Your task to perform on an android device: Open the Play Movies app and select the watchlist tab. Image 0: 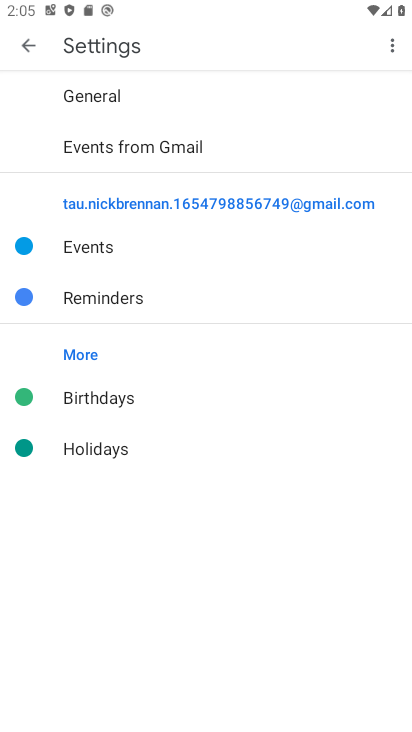
Step 0: press home button
Your task to perform on an android device: Open the Play Movies app and select the watchlist tab. Image 1: 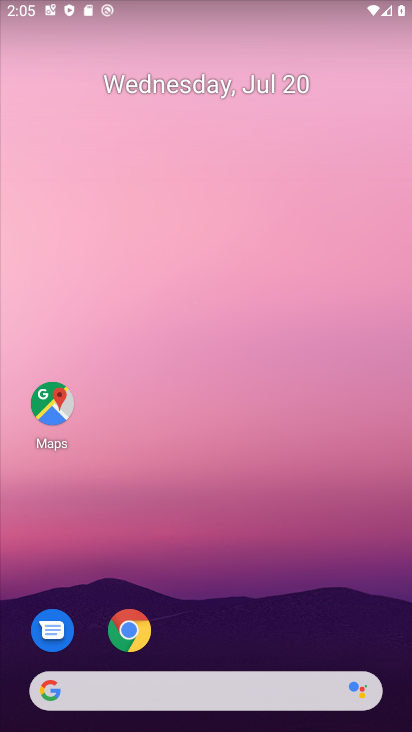
Step 1: drag from (288, 558) to (331, 90)
Your task to perform on an android device: Open the Play Movies app and select the watchlist tab. Image 2: 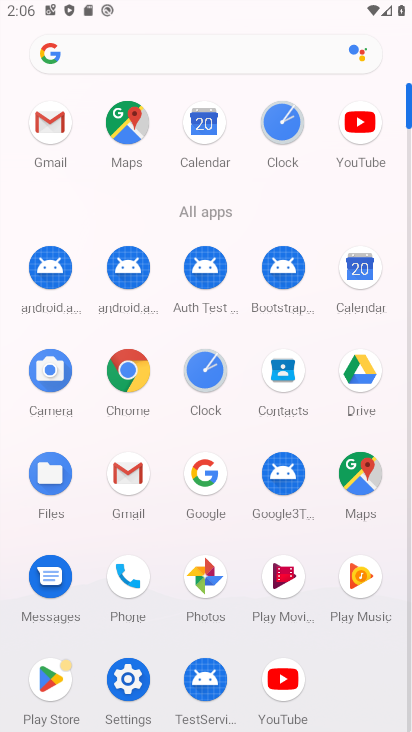
Step 2: click (288, 580)
Your task to perform on an android device: Open the Play Movies app and select the watchlist tab. Image 3: 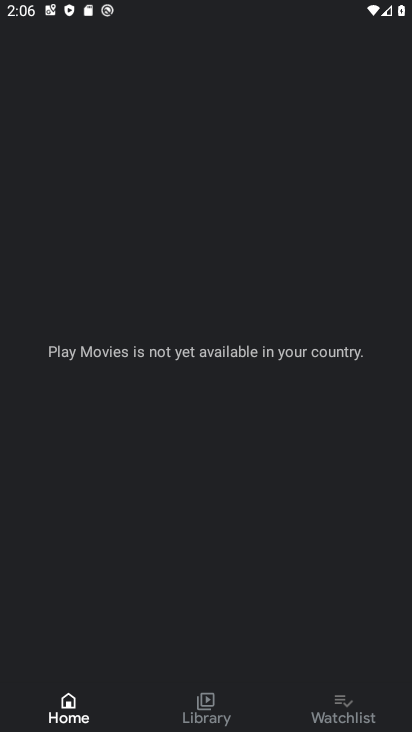
Step 3: click (350, 716)
Your task to perform on an android device: Open the Play Movies app and select the watchlist tab. Image 4: 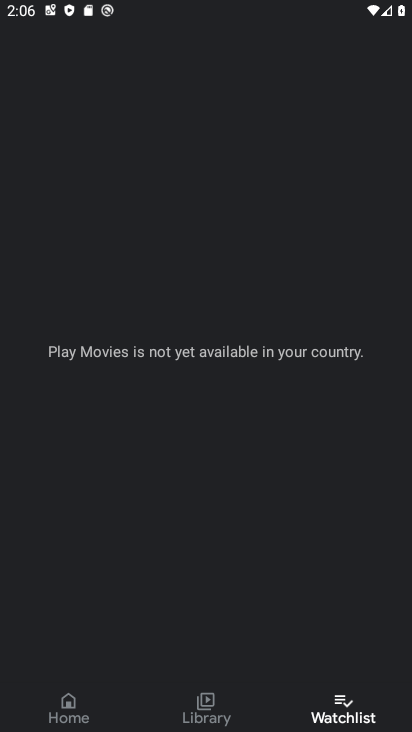
Step 4: task complete